Your task to perform on an android device: turn smart compose on in the gmail app Image 0: 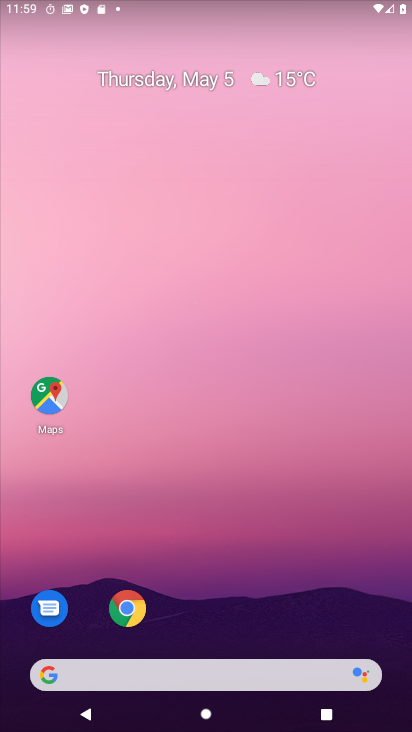
Step 0: drag from (226, 566) to (225, 61)
Your task to perform on an android device: turn smart compose on in the gmail app Image 1: 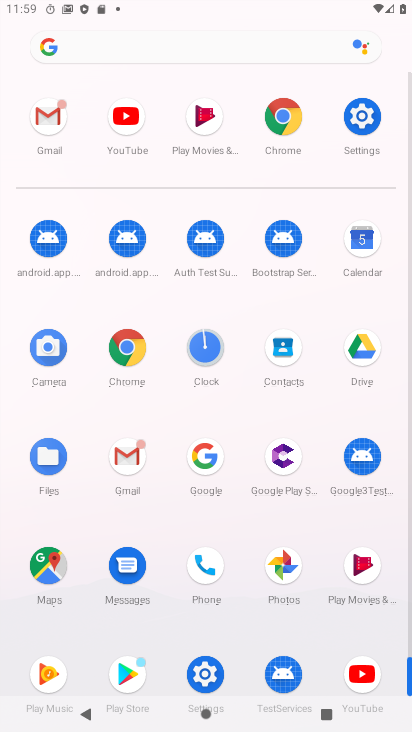
Step 1: click (47, 117)
Your task to perform on an android device: turn smart compose on in the gmail app Image 2: 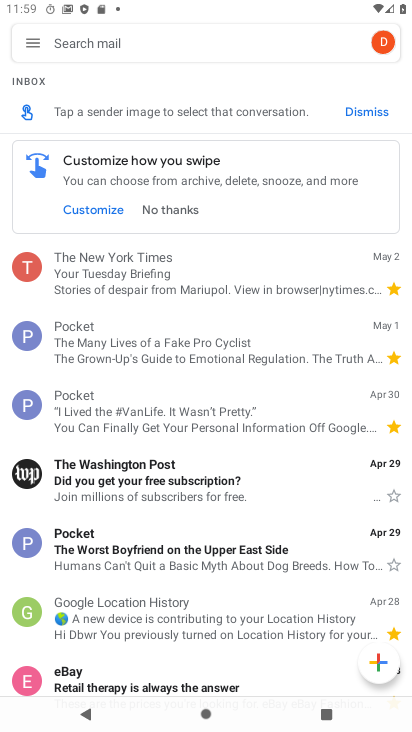
Step 2: click (28, 43)
Your task to perform on an android device: turn smart compose on in the gmail app Image 3: 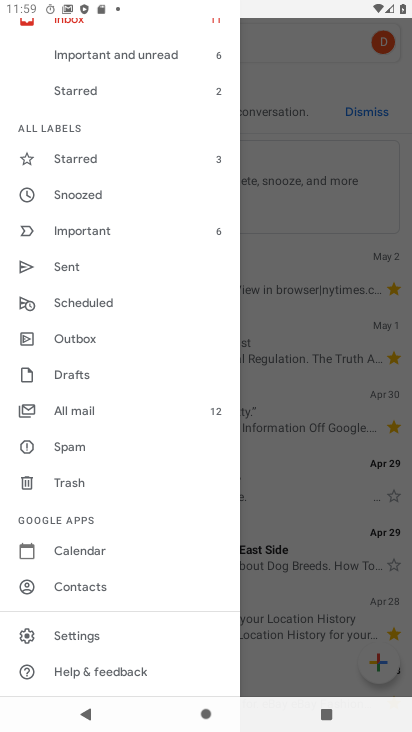
Step 3: click (93, 639)
Your task to perform on an android device: turn smart compose on in the gmail app Image 4: 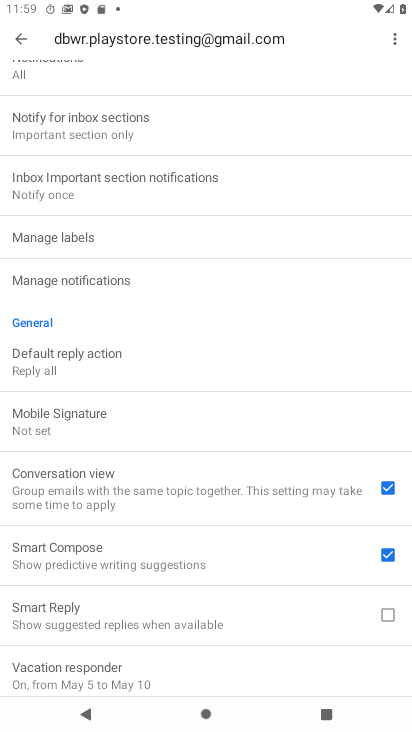
Step 4: task complete